Your task to perform on an android device: Search for pizza restaurants on Maps Image 0: 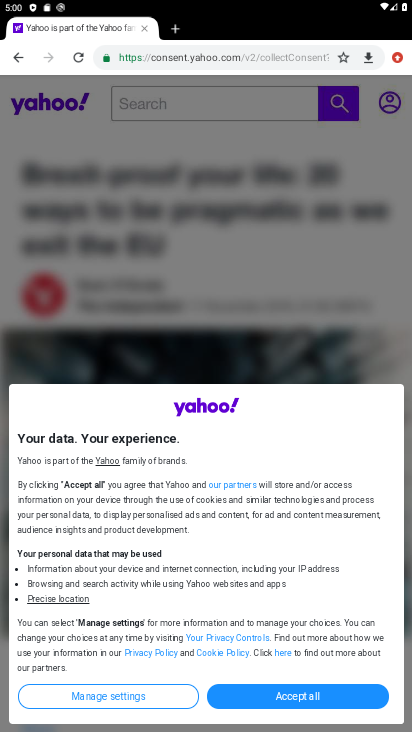
Step 0: press home button
Your task to perform on an android device: Search for pizza restaurants on Maps Image 1: 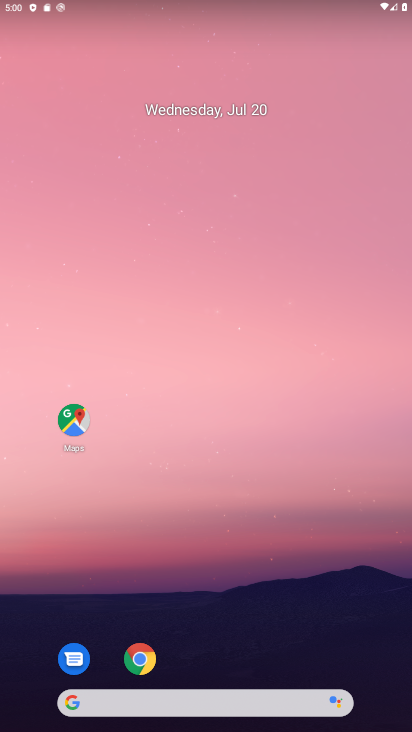
Step 1: click (66, 415)
Your task to perform on an android device: Search for pizza restaurants on Maps Image 2: 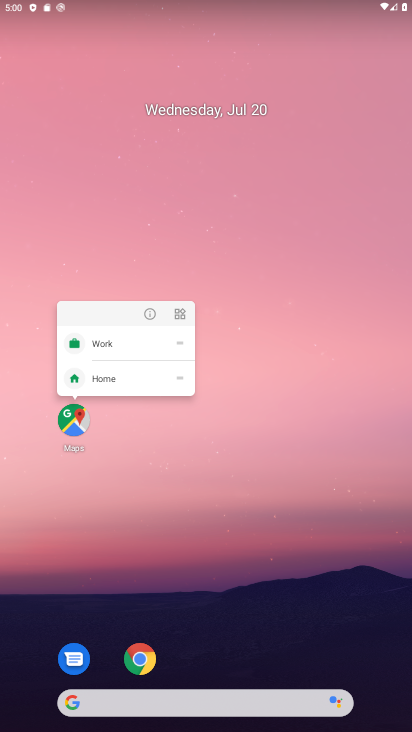
Step 2: click (75, 427)
Your task to perform on an android device: Search for pizza restaurants on Maps Image 3: 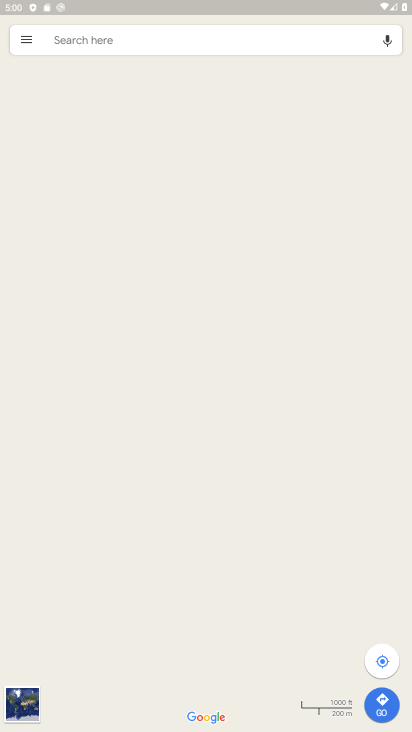
Step 3: click (146, 44)
Your task to perform on an android device: Search for pizza restaurants on Maps Image 4: 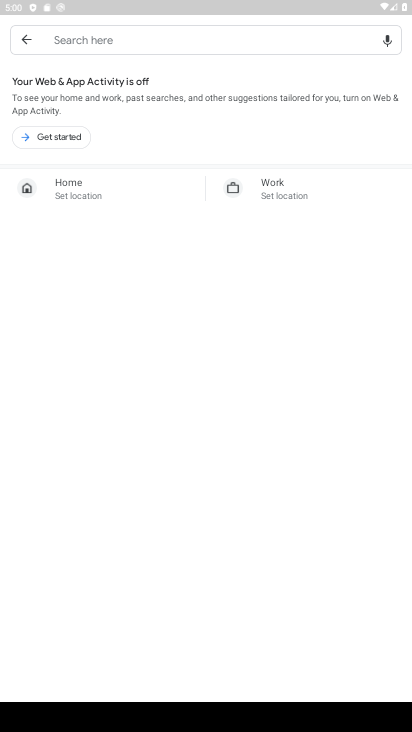
Step 4: click (97, 38)
Your task to perform on an android device: Search for pizza restaurants on Maps Image 5: 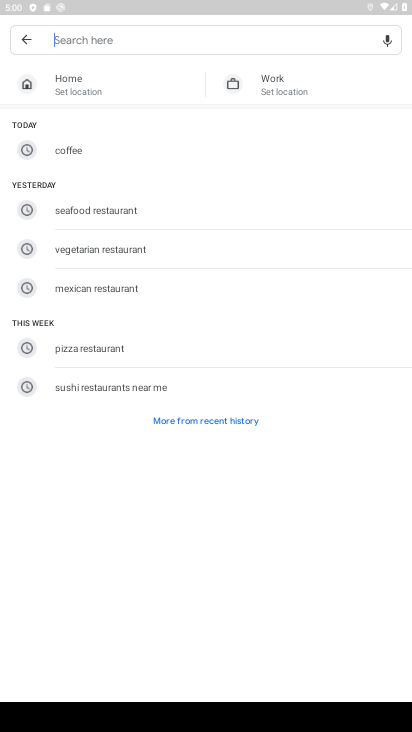
Step 5: click (75, 347)
Your task to perform on an android device: Search for pizza restaurants on Maps Image 6: 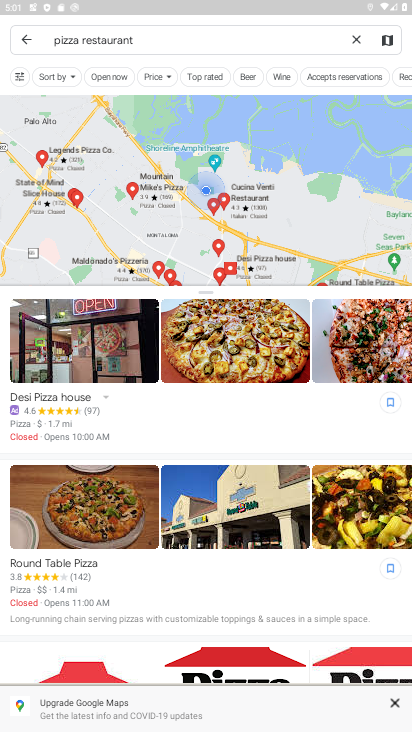
Step 6: task complete